Your task to perform on an android device: What's a good restaurant in Philadelphia? Image 0: 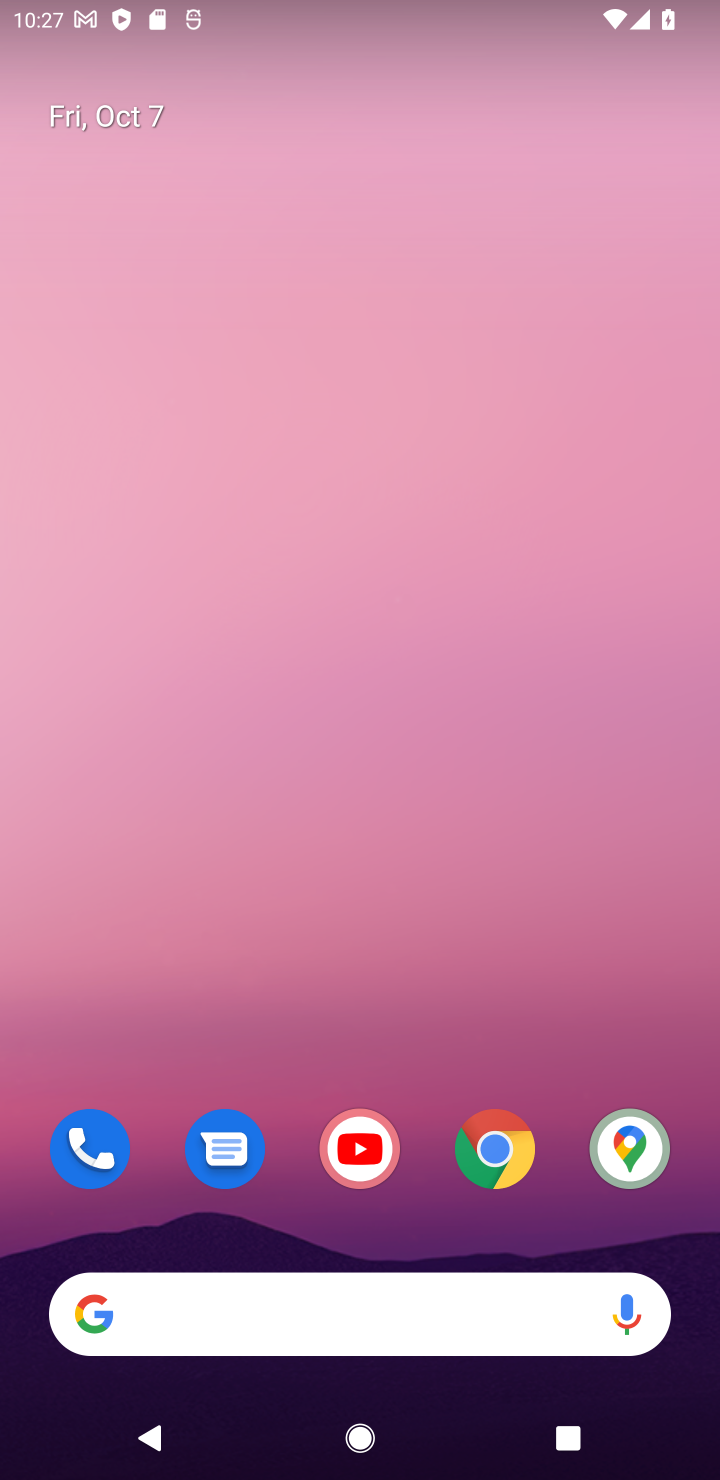
Step 0: click (289, 1477)
Your task to perform on an android device: What's a good restaurant in Philadelphia? Image 1: 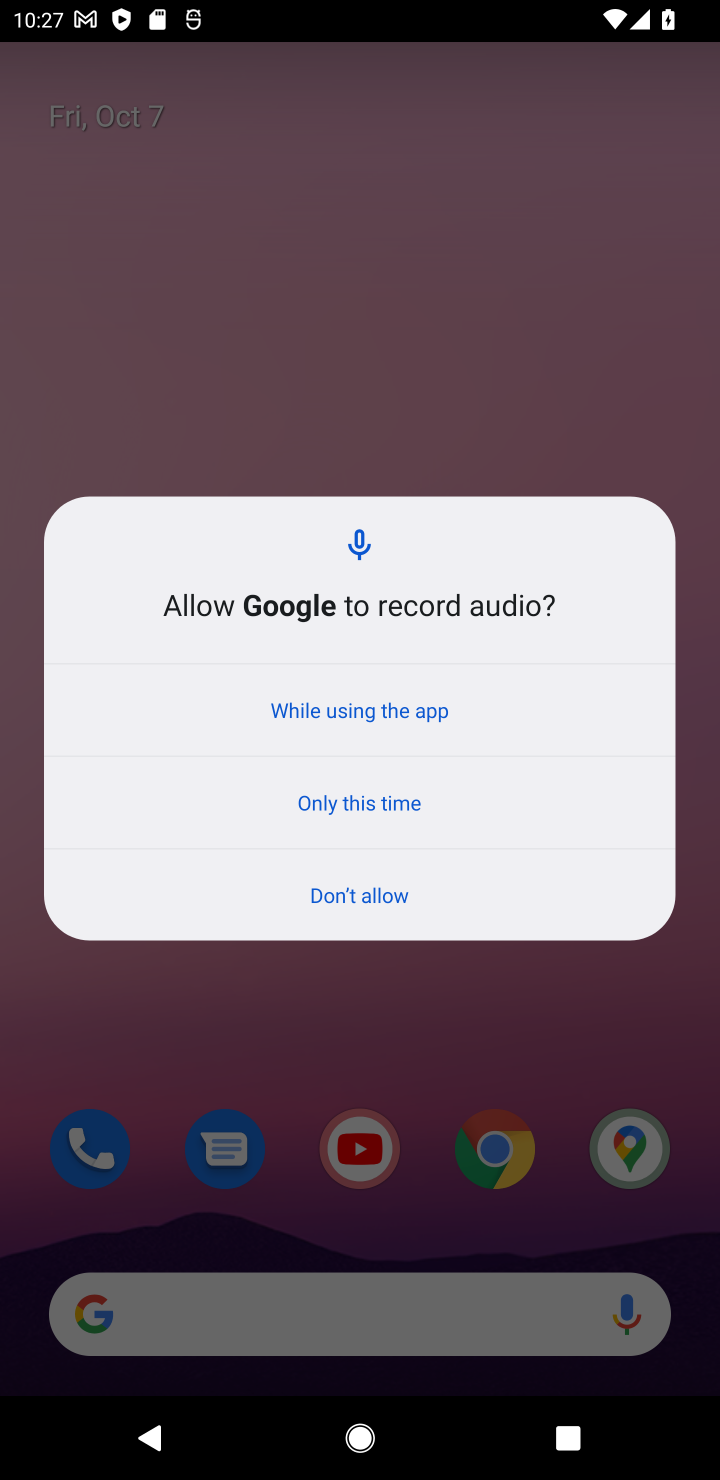
Step 1: click (327, 722)
Your task to perform on an android device: What's a good restaurant in Philadelphia? Image 2: 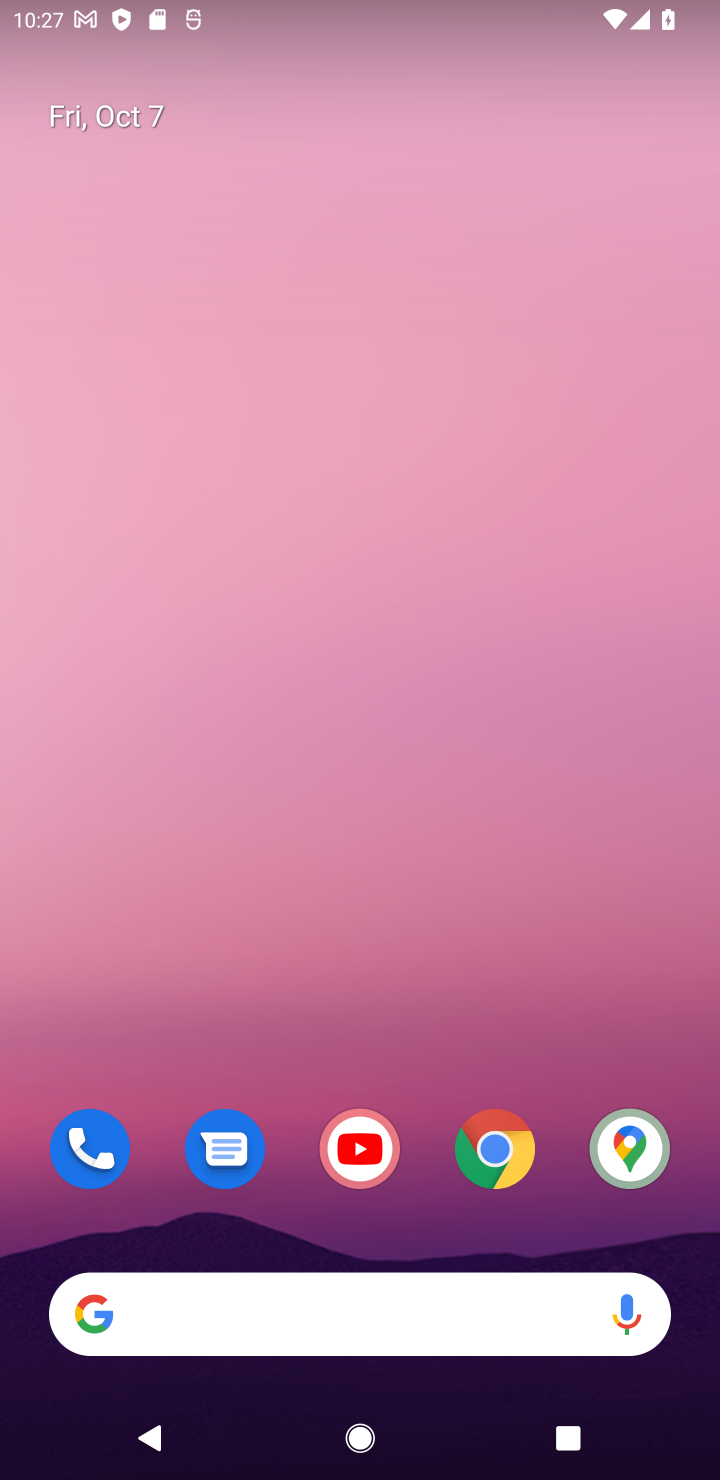
Step 2: click (407, 1329)
Your task to perform on an android device: What's a good restaurant in Philadelphia? Image 3: 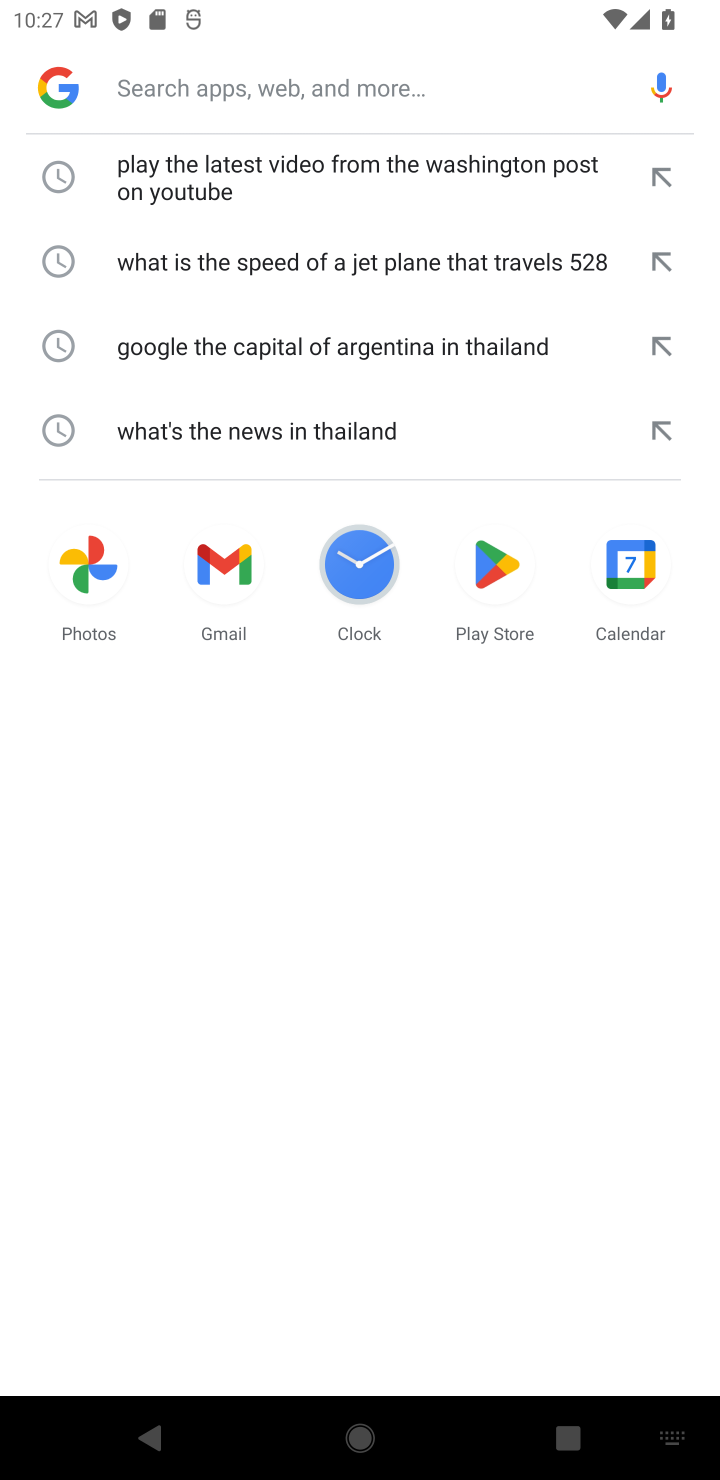
Step 3: type "What's a good restaurant in Philadelphia?"
Your task to perform on an android device: What's a good restaurant in Philadelphia? Image 4: 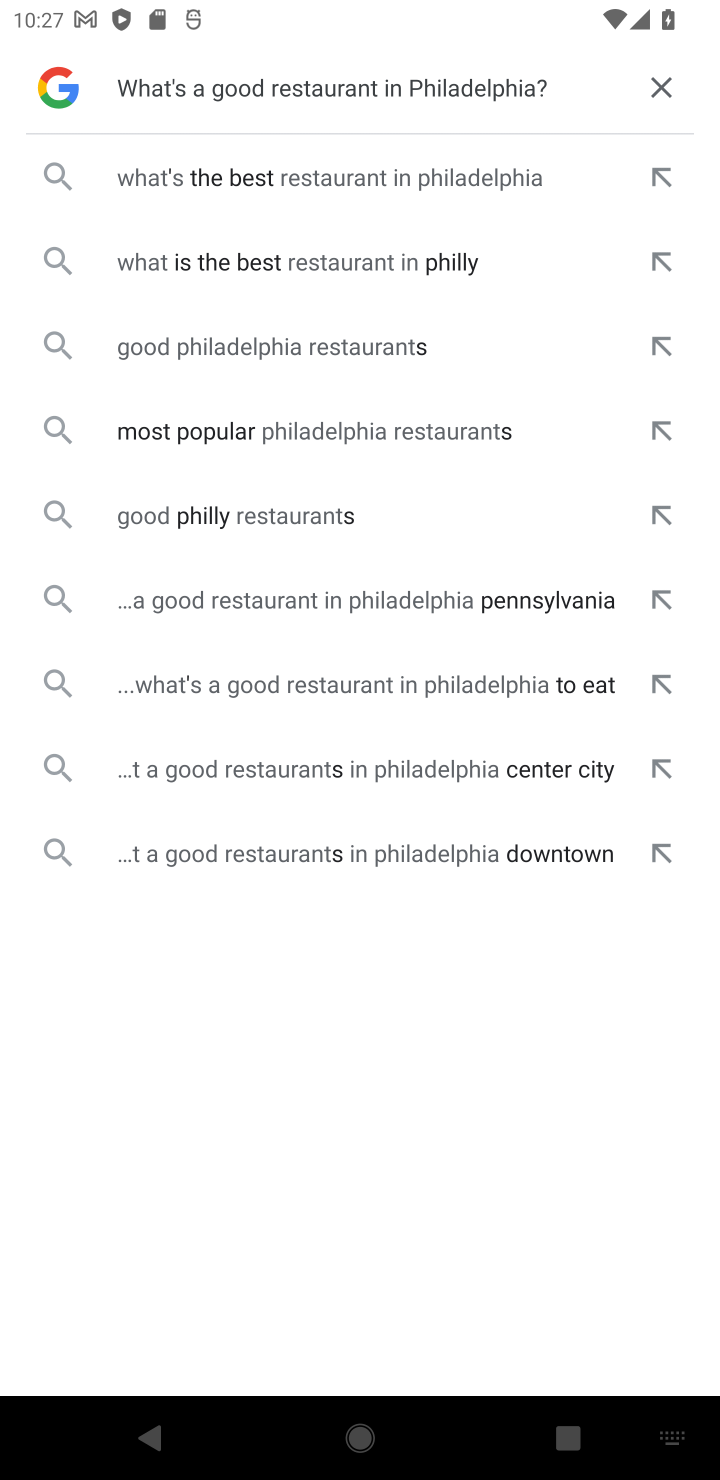
Step 4: click (379, 178)
Your task to perform on an android device: What's a good restaurant in Philadelphia? Image 5: 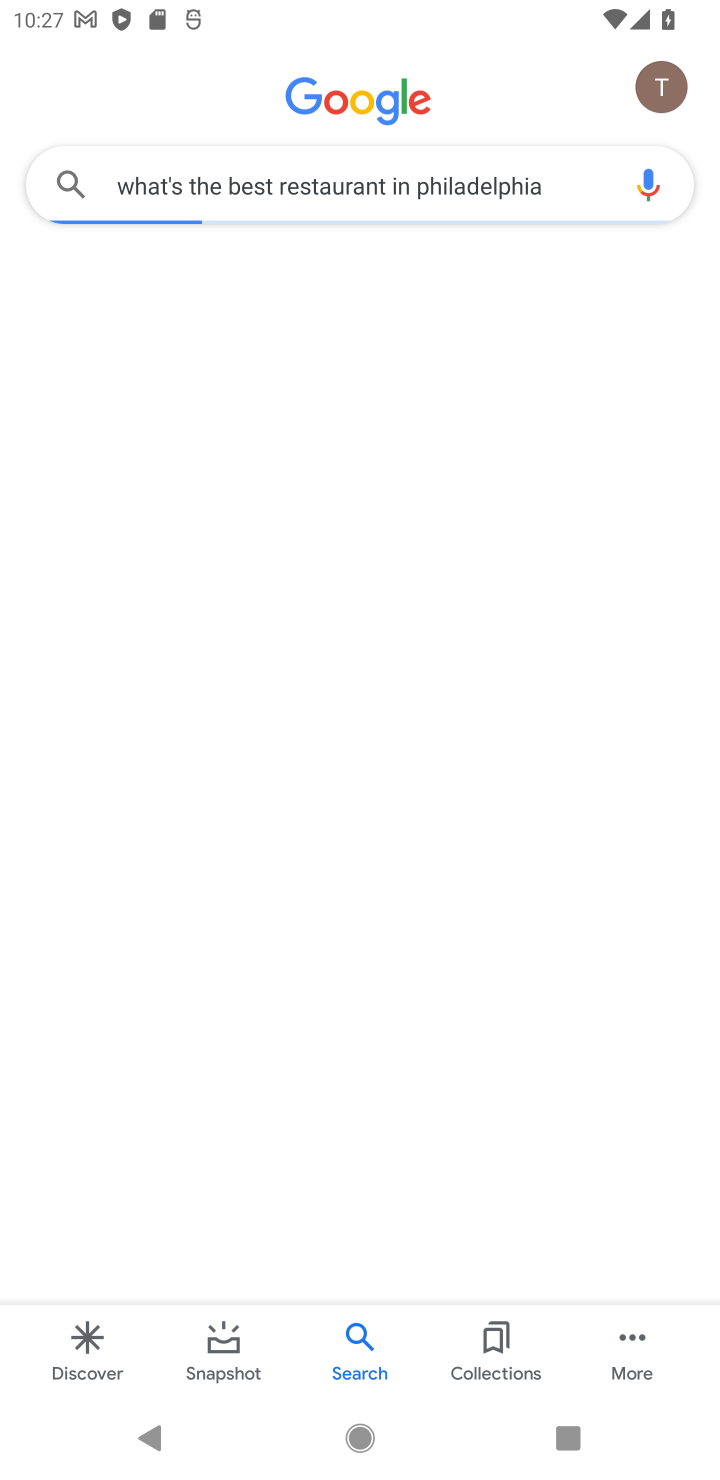
Step 5: task complete